Your task to perform on an android device: Go to sound settings Image 0: 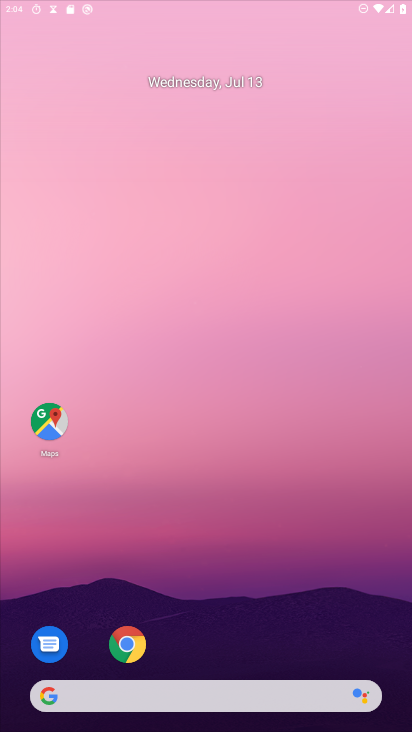
Step 0: press home button
Your task to perform on an android device: Go to sound settings Image 1: 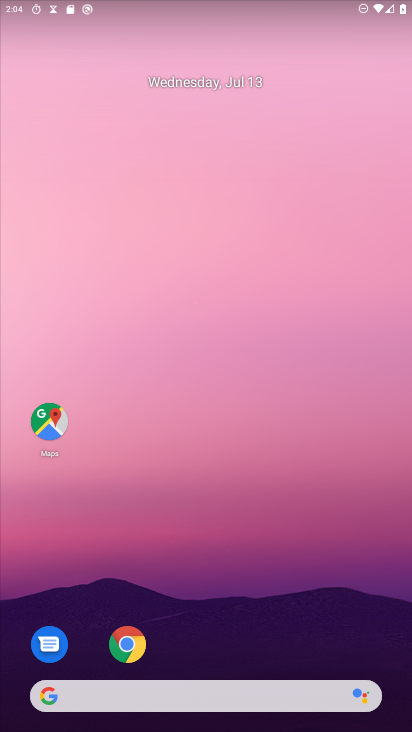
Step 1: drag from (309, 555) to (320, 167)
Your task to perform on an android device: Go to sound settings Image 2: 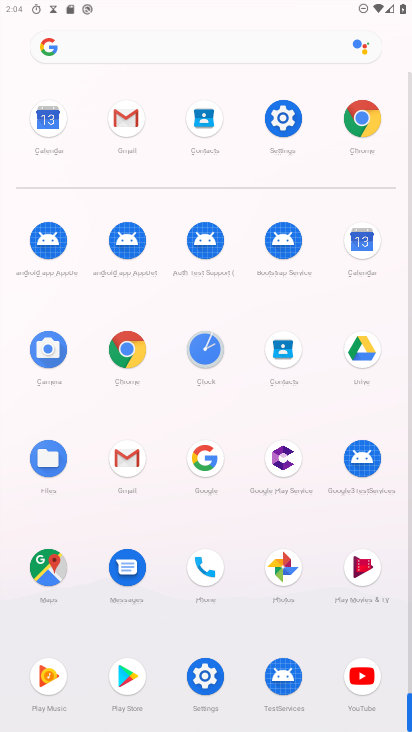
Step 2: click (280, 125)
Your task to perform on an android device: Go to sound settings Image 3: 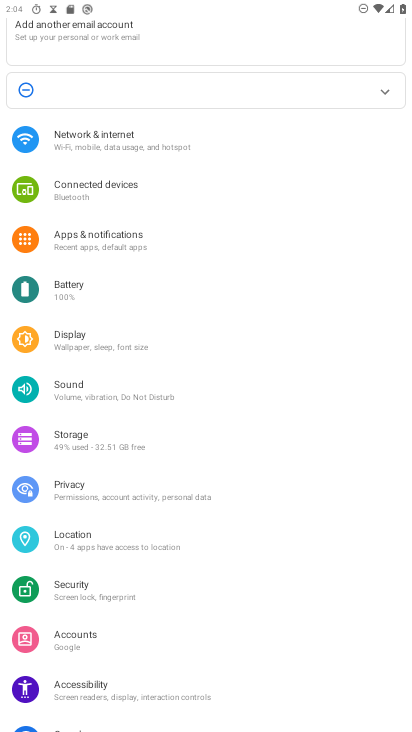
Step 3: click (114, 392)
Your task to perform on an android device: Go to sound settings Image 4: 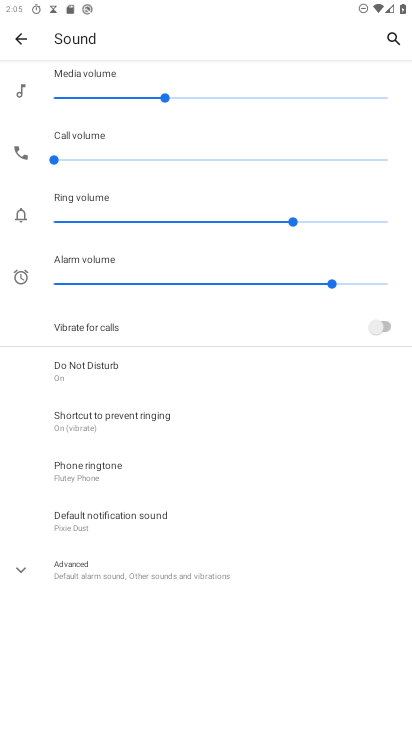
Step 4: task complete